Your task to perform on an android device: Open Reddit.com Image 0: 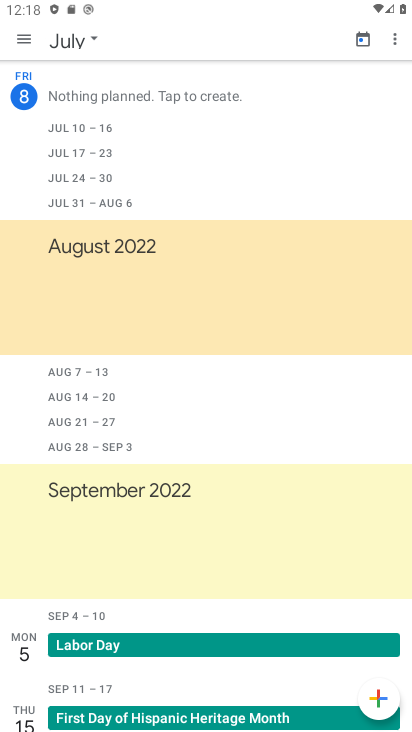
Step 0: press home button
Your task to perform on an android device: Open Reddit.com Image 1: 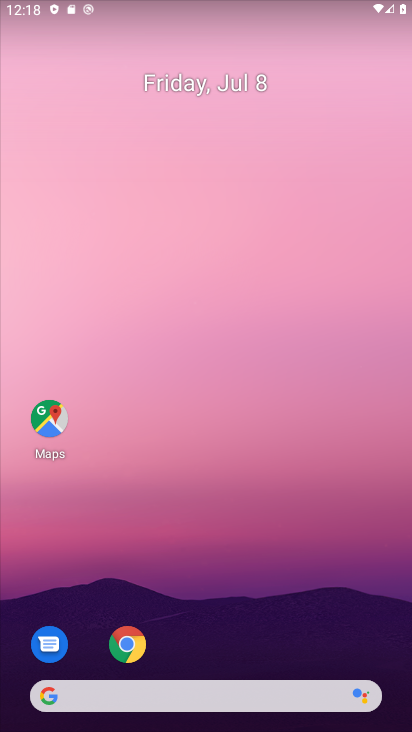
Step 1: drag from (225, 705) to (146, 216)
Your task to perform on an android device: Open Reddit.com Image 2: 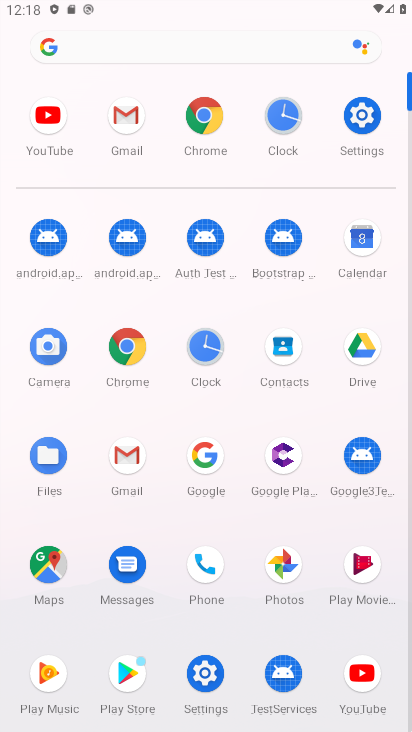
Step 2: click (212, 128)
Your task to perform on an android device: Open Reddit.com Image 3: 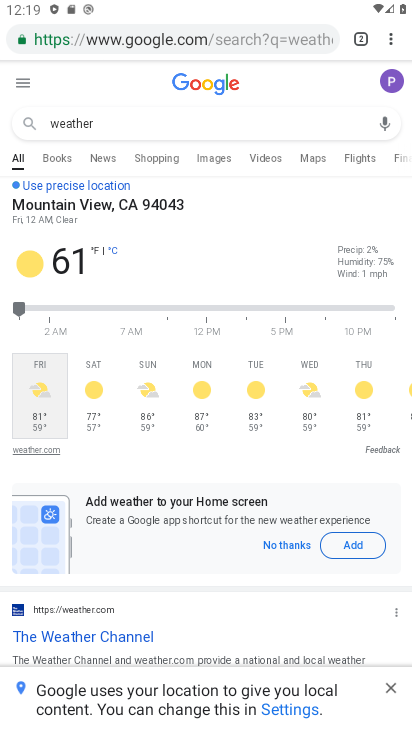
Step 3: click (213, 45)
Your task to perform on an android device: Open Reddit.com Image 4: 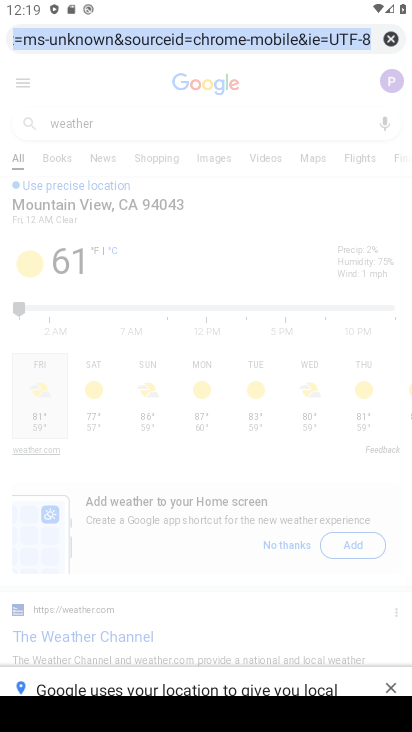
Step 4: type "reddit.com"
Your task to perform on an android device: Open Reddit.com Image 5: 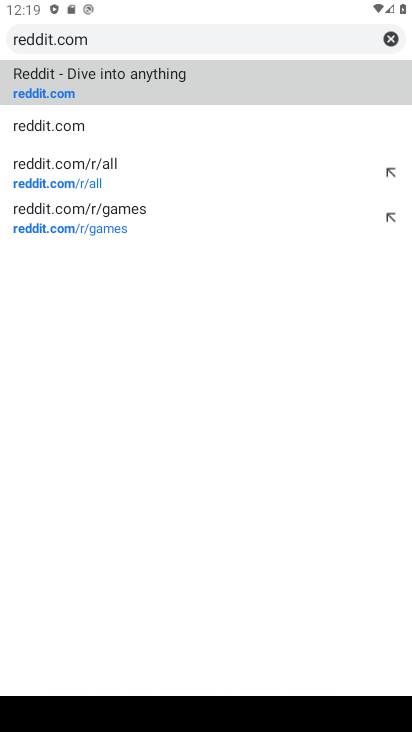
Step 5: click (164, 88)
Your task to perform on an android device: Open Reddit.com Image 6: 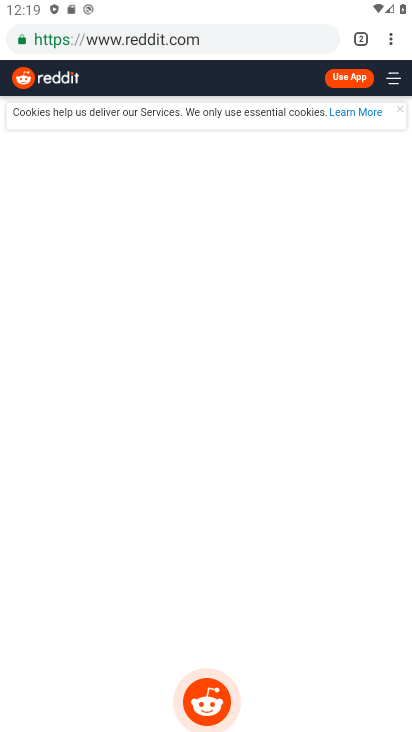
Step 6: task complete